Your task to perform on an android device: turn on the 12-hour format for clock Image 0: 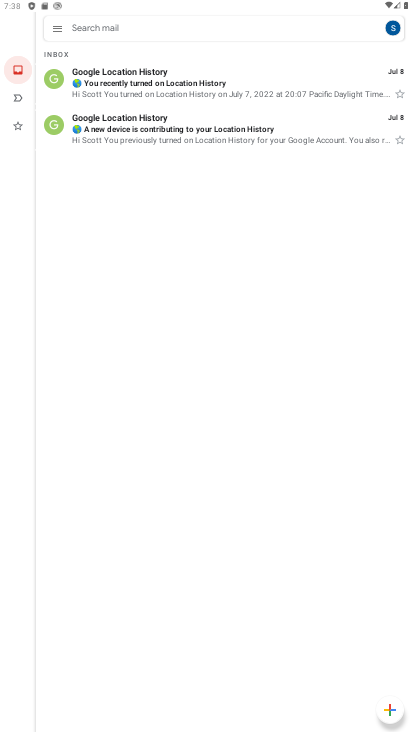
Step 0: press home button
Your task to perform on an android device: turn on the 12-hour format for clock Image 1: 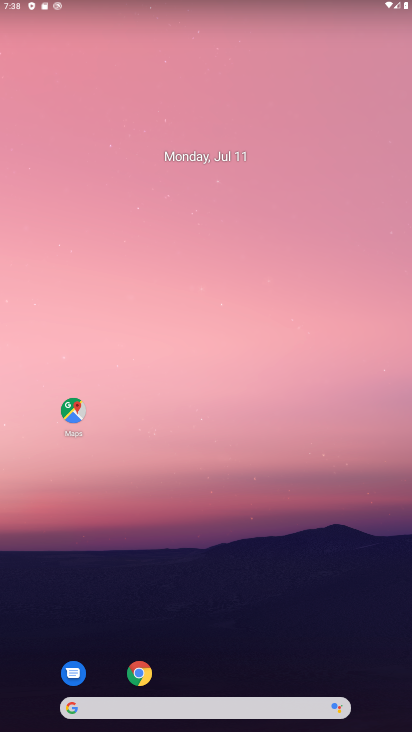
Step 1: drag from (217, 664) to (217, 429)
Your task to perform on an android device: turn on the 12-hour format for clock Image 2: 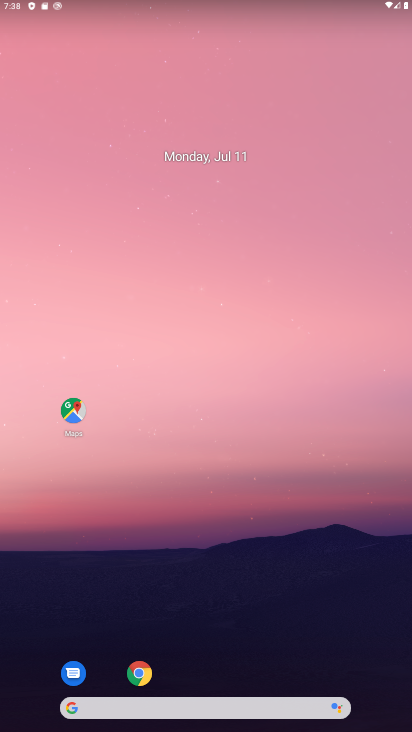
Step 2: drag from (149, 656) to (145, 100)
Your task to perform on an android device: turn on the 12-hour format for clock Image 3: 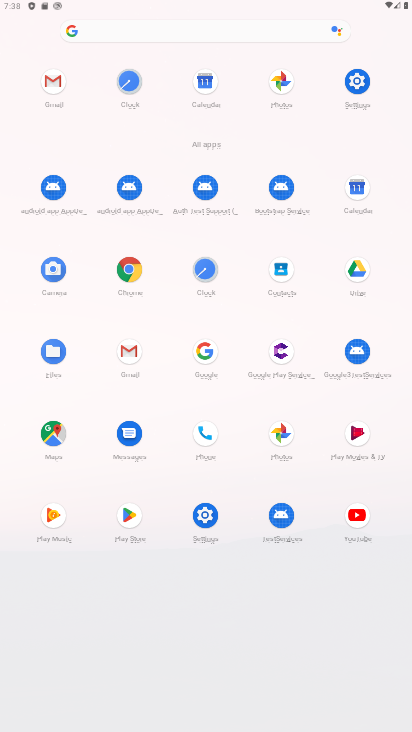
Step 3: click (207, 270)
Your task to perform on an android device: turn on the 12-hour format for clock Image 4: 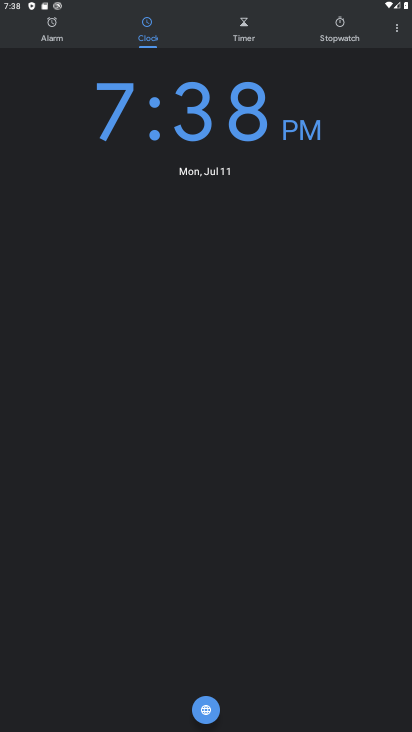
Step 4: click (396, 29)
Your task to perform on an android device: turn on the 12-hour format for clock Image 5: 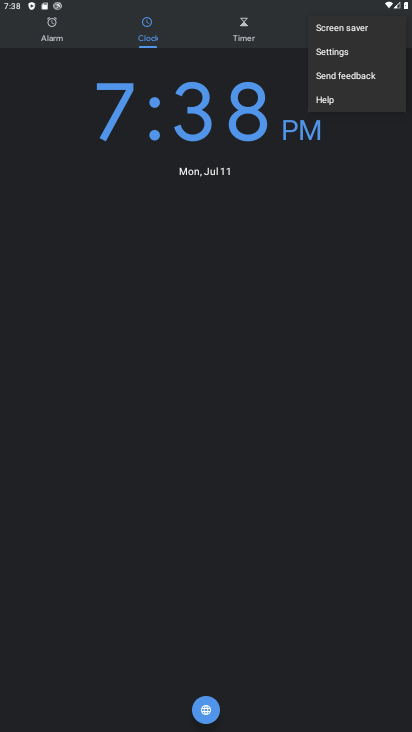
Step 5: click (311, 55)
Your task to perform on an android device: turn on the 12-hour format for clock Image 6: 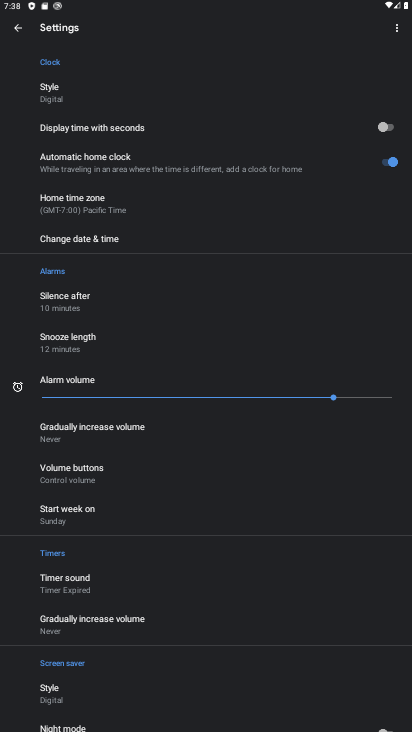
Step 6: click (98, 236)
Your task to perform on an android device: turn on the 12-hour format for clock Image 7: 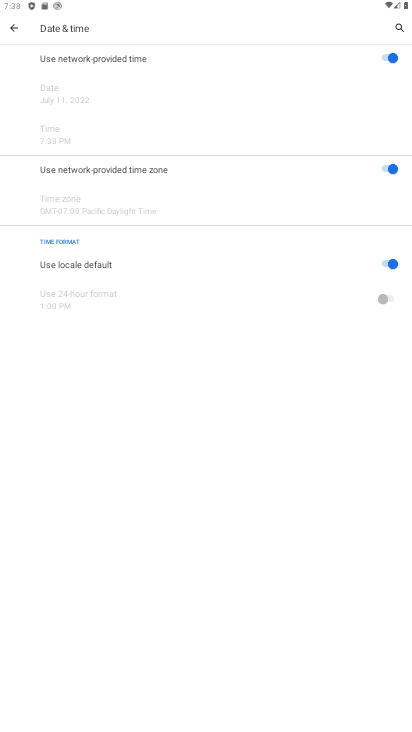
Step 7: task complete